Your task to perform on an android device: Open battery settings Image 0: 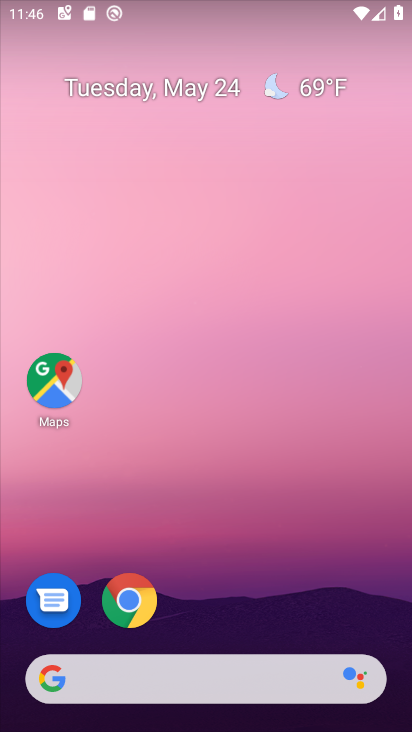
Step 0: drag from (382, 623) to (380, 181)
Your task to perform on an android device: Open battery settings Image 1: 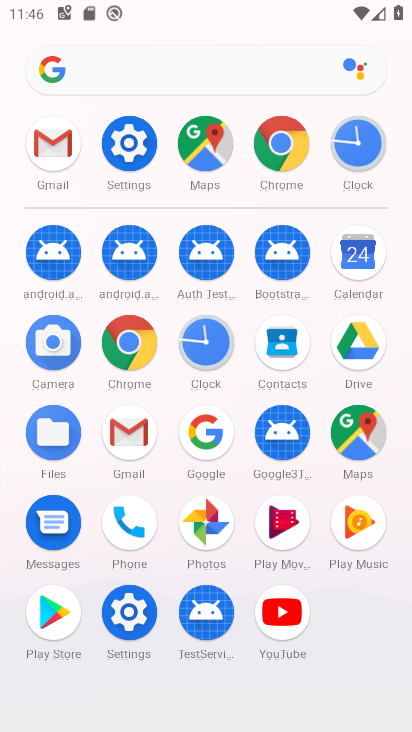
Step 1: click (140, 156)
Your task to perform on an android device: Open battery settings Image 2: 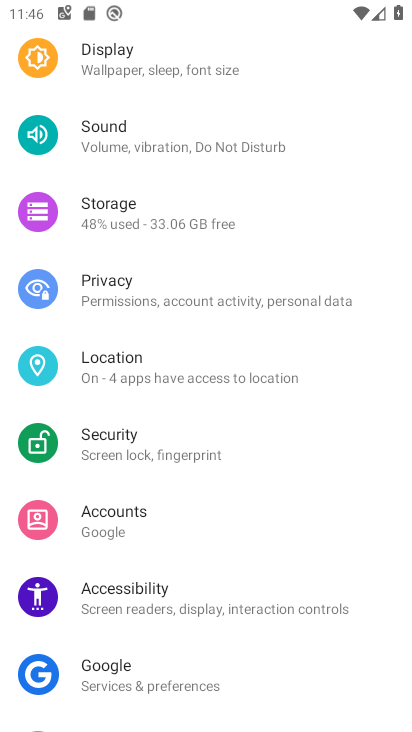
Step 2: drag from (357, 605) to (367, 501)
Your task to perform on an android device: Open battery settings Image 3: 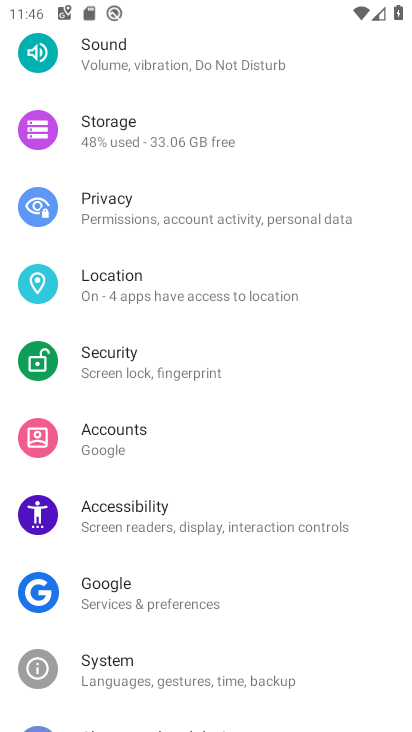
Step 3: drag from (360, 639) to (371, 495)
Your task to perform on an android device: Open battery settings Image 4: 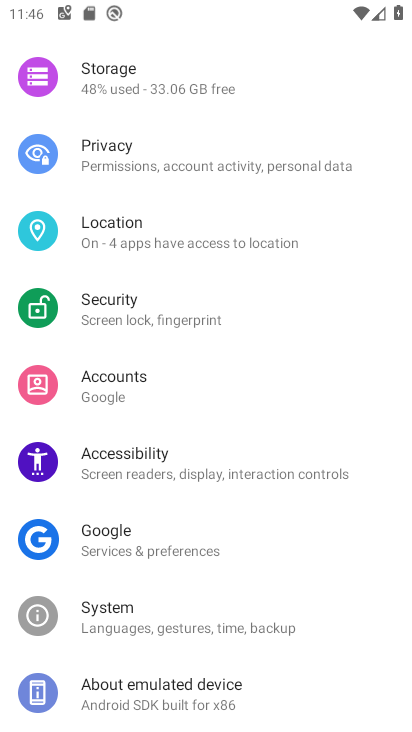
Step 4: drag from (370, 400) to (374, 501)
Your task to perform on an android device: Open battery settings Image 5: 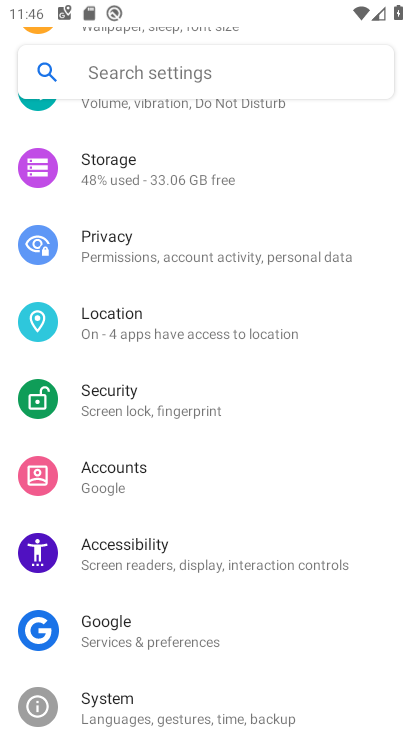
Step 5: drag from (376, 382) to (378, 466)
Your task to perform on an android device: Open battery settings Image 6: 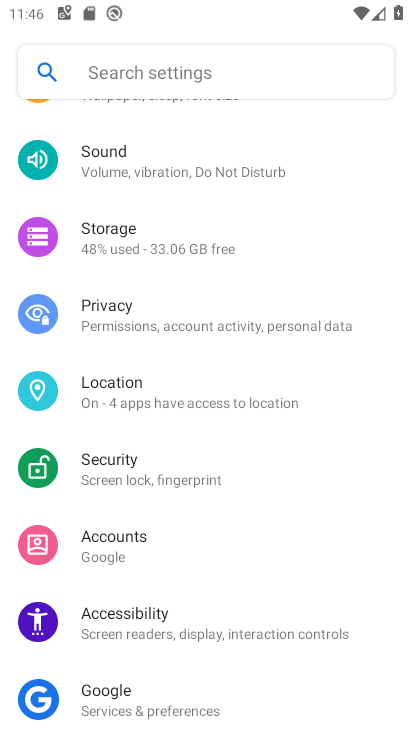
Step 6: drag from (383, 361) to (368, 451)
Your task to perform on an android device: Open battery settings Image 7: 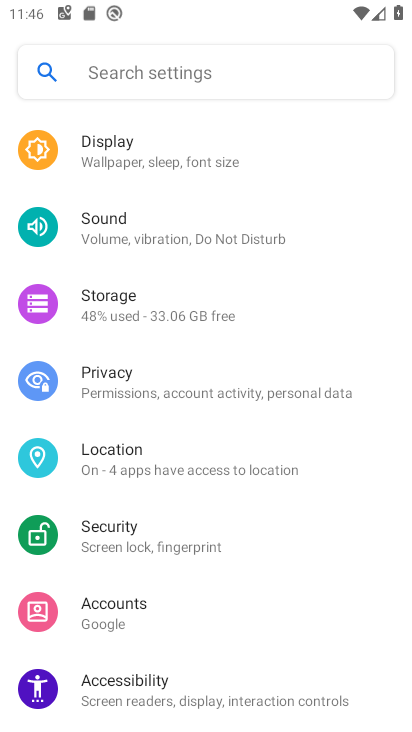
Step 7: drag from (363, 360) to (365, 437)
Your task to perform on an android device: Open battery settings Image 8: 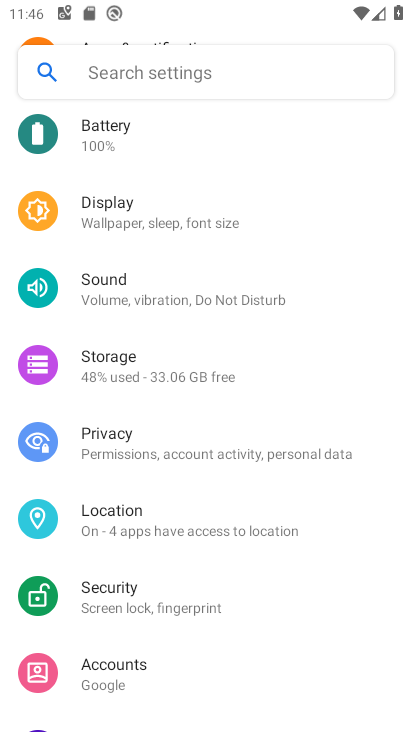
Step 8: drag from (363, 349) to (359, 429)
Your task to perform on an android device: Open battery settings Image 9: 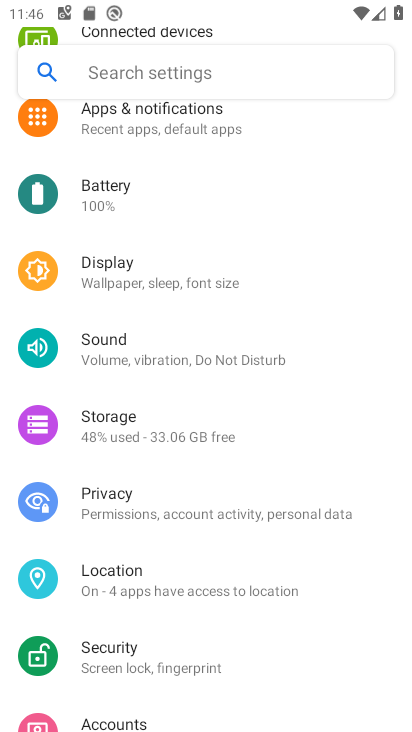
Step 9: drag from (364, 342) to (360, 453)
Your task to perform on an android device: Open battery settings Image 10: 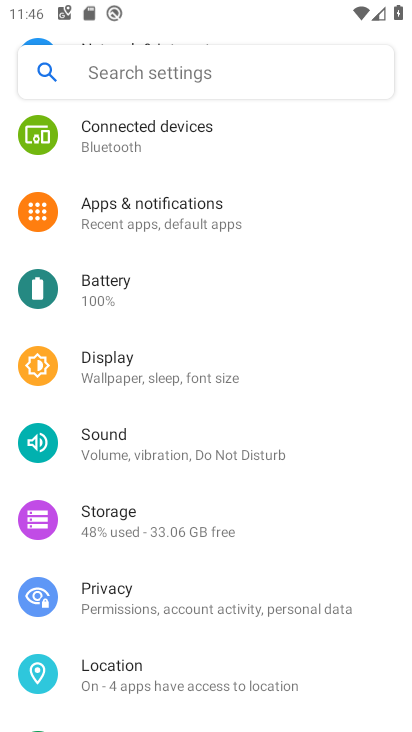
Step 10: drag from (349, 382) to (351, 470)
Your task to perform on an android device: Open battery settings Image 11: 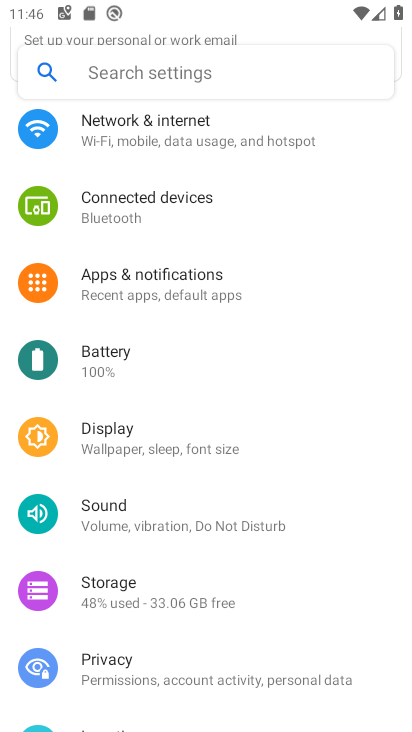
Step 11: drag from (356, 363) to (362, 462)
Your task to perform on an android device: Open battery settings Image 12: 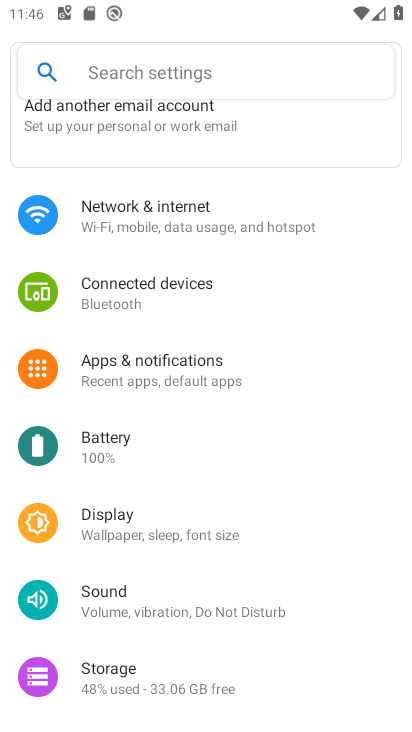
Step 12: drag from (359, 357) to (356, 449)
Your task to perform on an android device: Open battery settings Image 13: 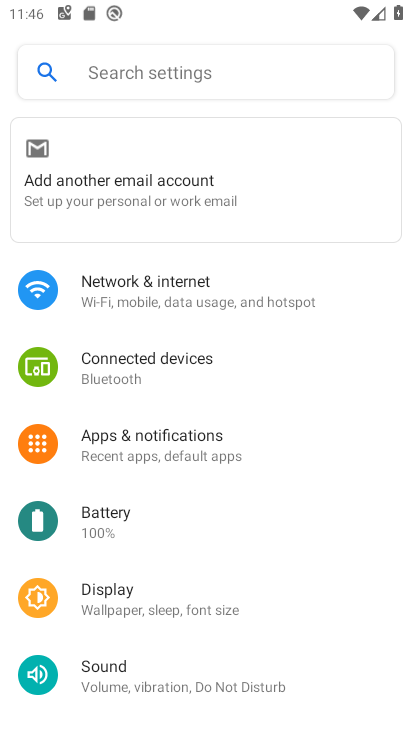
Step 13: click (225, 543)
Your task to perform on an android device: Open battery settings Image 14: 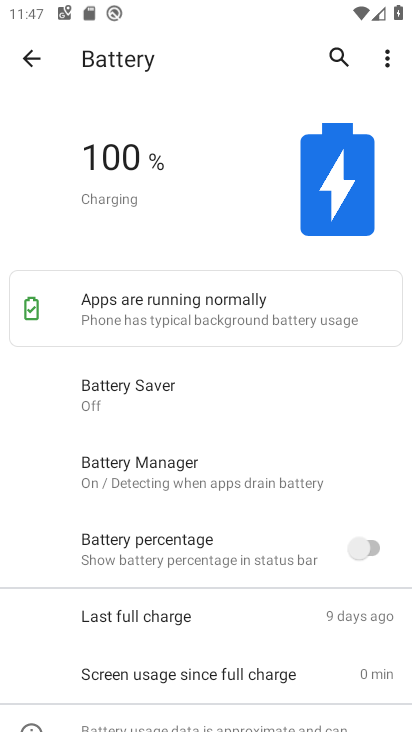
Step 14: task complete